Your task to perform on an android device: Open settings Image 0: 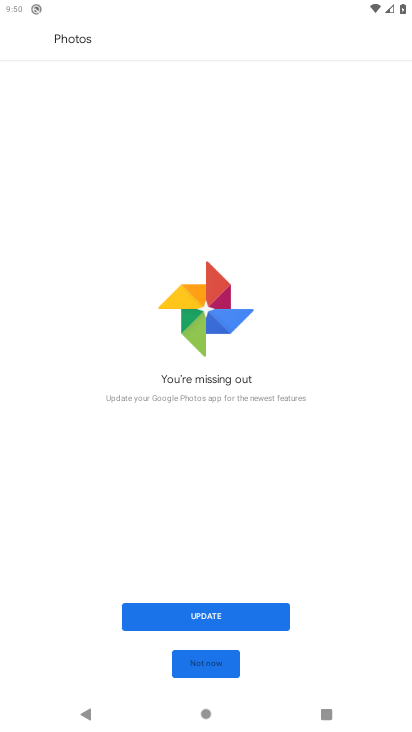
Step 0: press home button
Your task to perform on an android device: Open settings Image 1: 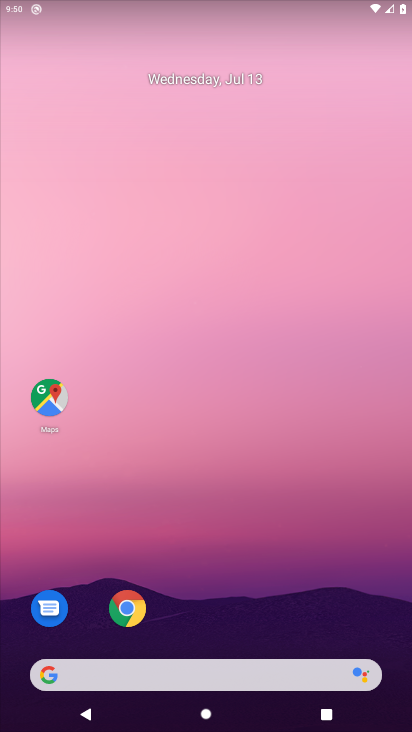
Step 1: drag from (53, 627) to (198, 81)
Your task to perform on an android device: Open settings Image 2: 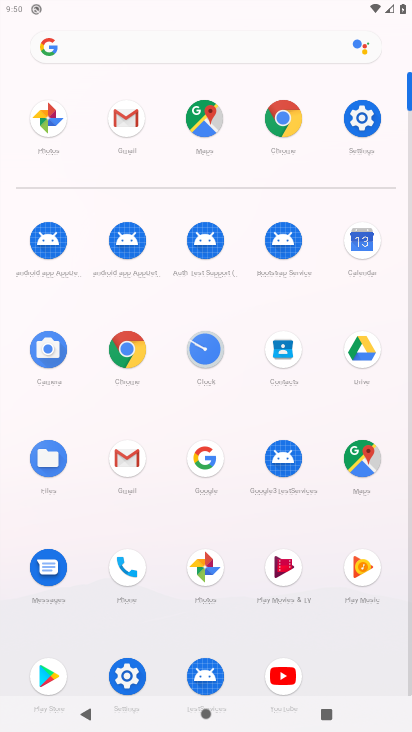
Step 2: click (132, 670)
Your task to perform on an android device: Open settings Image 3: 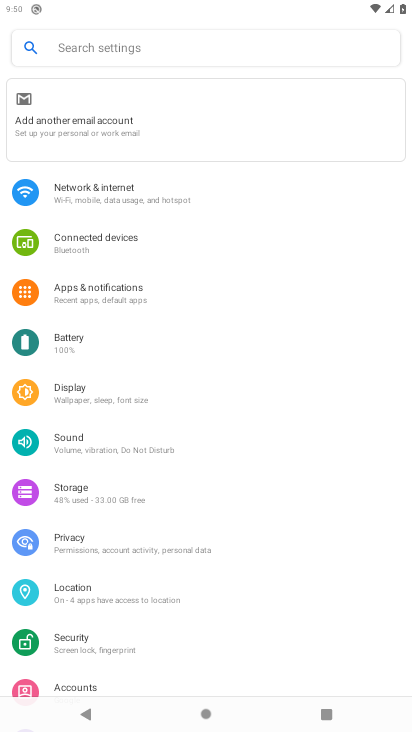
Step 3: task complete